Your task to perform on an android device: Open Google Maps Image 0: 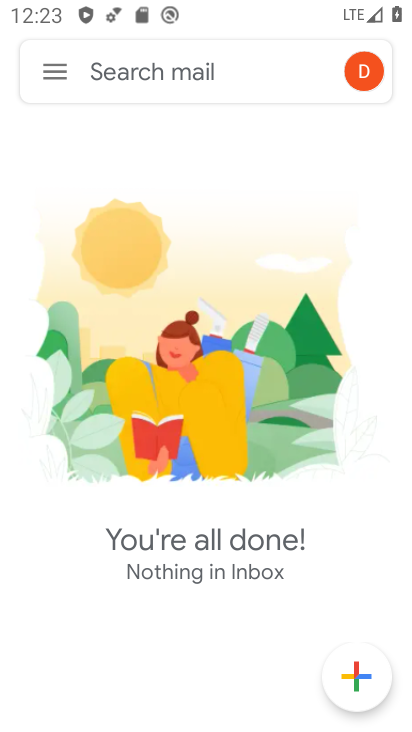
Step 0: press home button
Your task to perform on an android device: Open Google Maps Image 1: 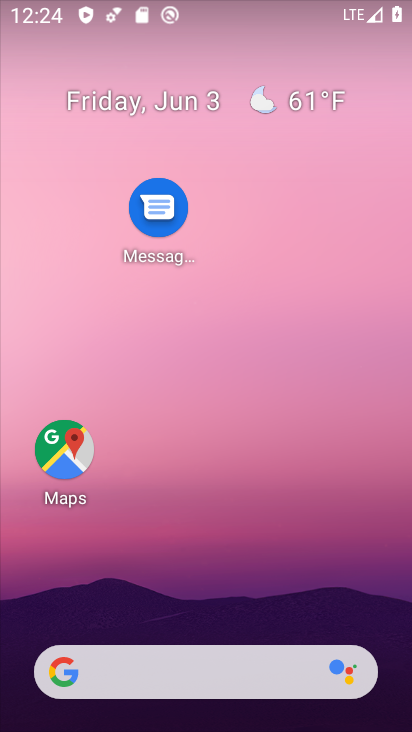
Step 1: click (68, 427)
Your task to perform on an android device: Open Google Maps Image 2: 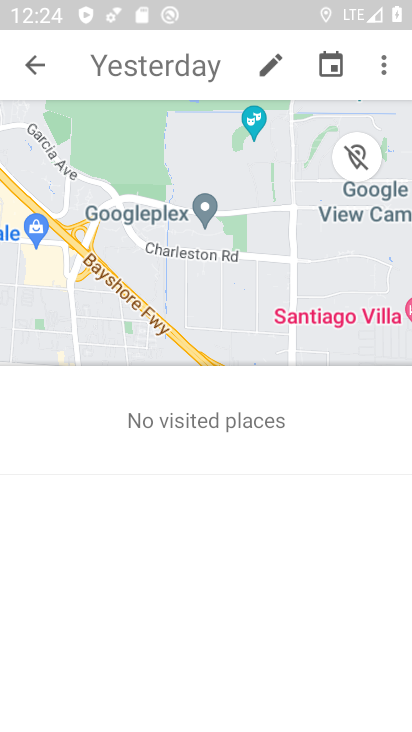
Step 2: click (35, 61)
Your task to perform on an android device: Open Google Maps Image 3: 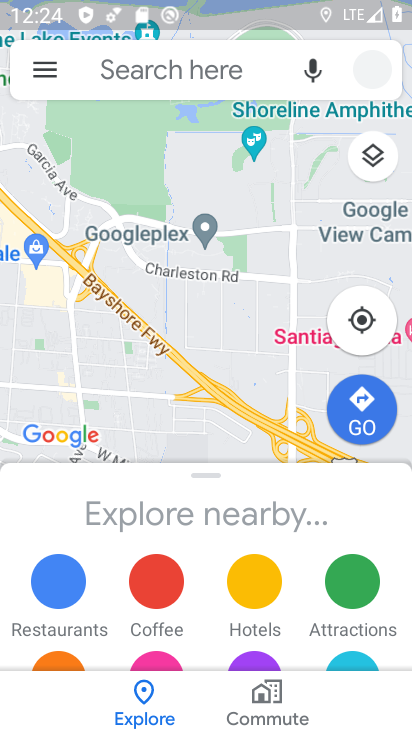
Step 3: task complete